Your task to perform on an android device: Open Google Image 0: 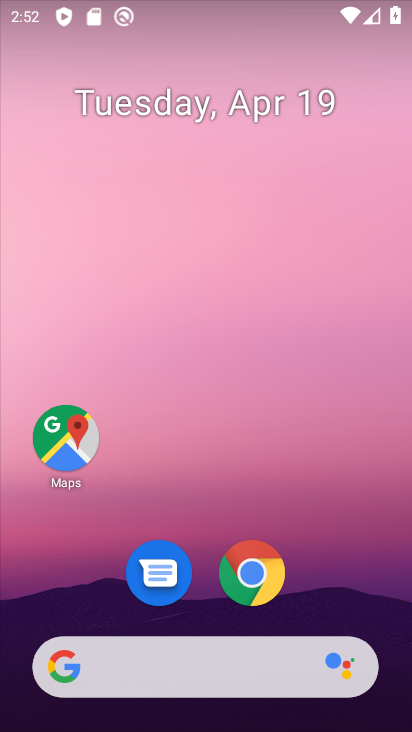
Step 0: drag from (334, 242) to (343, 201)
Your task to perform on an android device: Open Google Image 1: 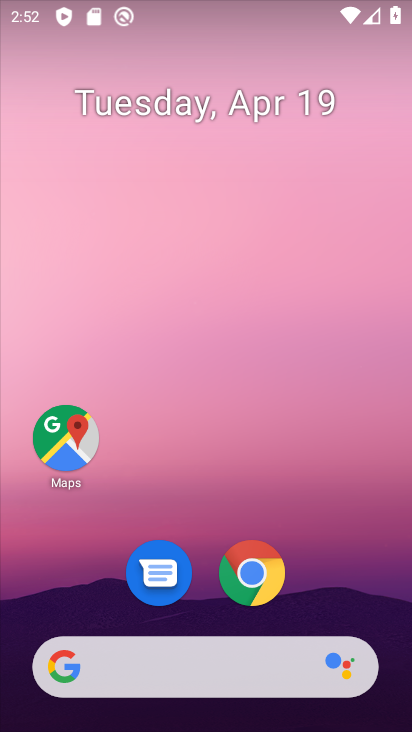
Step 1: drag from (330, 578) to (342, 100)
Your task to perform on an android device: Open Google Image 2: 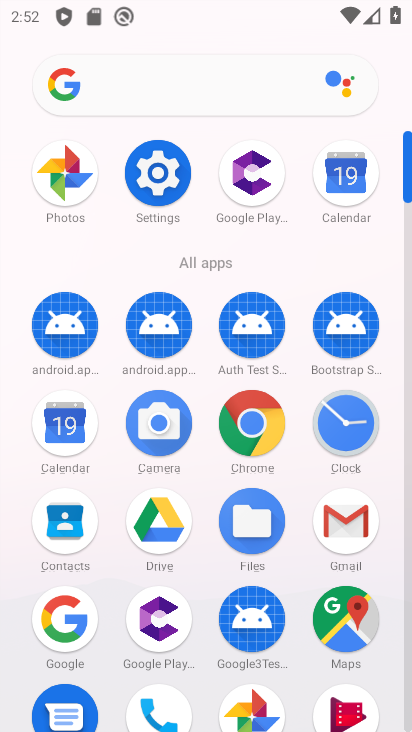
Step 2: click (53, 624)
Your task to perform on an android device: Open Google Image 3: 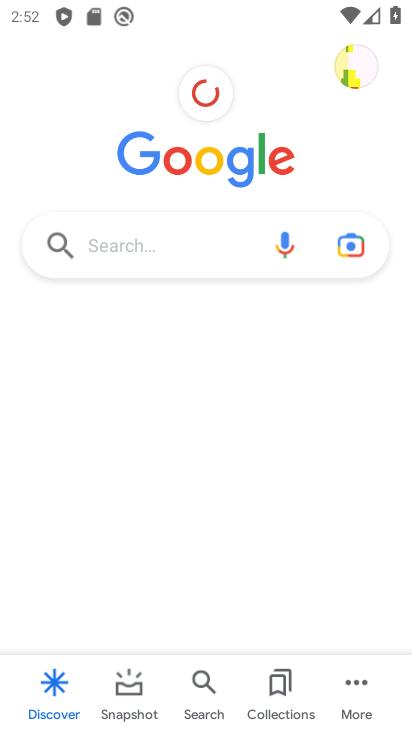
Step 3: task complete